Your task to perform on an android device: open a new tab in the chrome app Image 0: 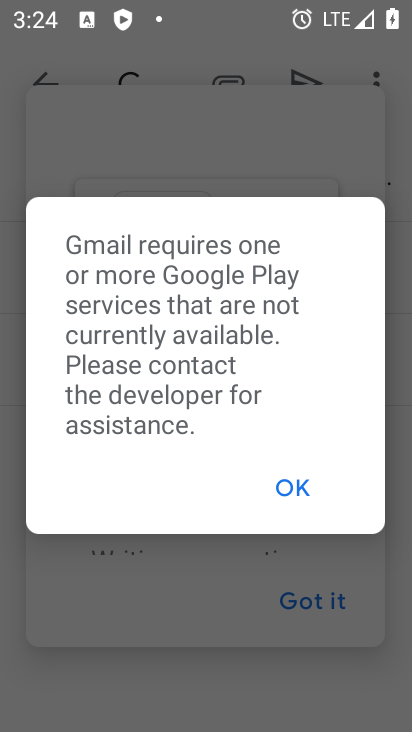
Step 0: press home button
Your task to perform on an android device: open a new tab in the chrome app Image 1: 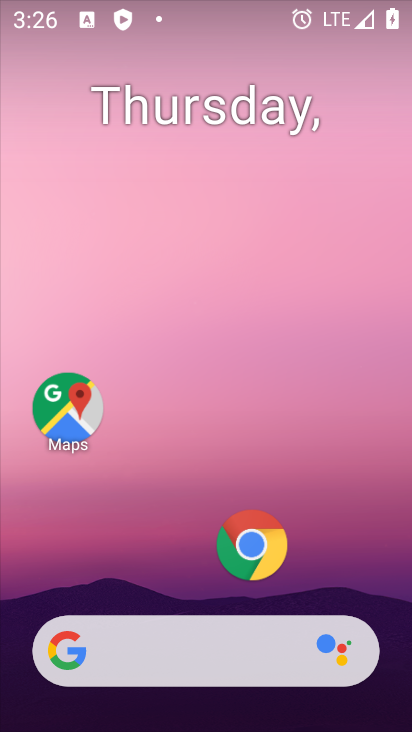
Step 1: drag from (197, 575) to (278, 127)
Your task to perform on an android device: open a new tab in the chrome app Image 2: 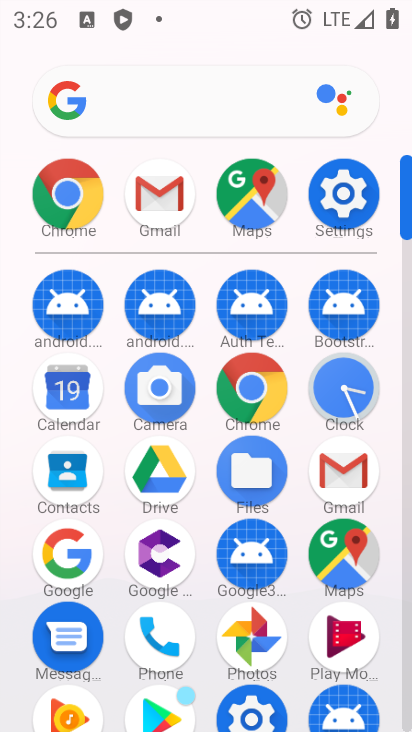
Step 2: click (266, 363)
Your task to perform on an android device: open a new tab in the chrome app Image 3: 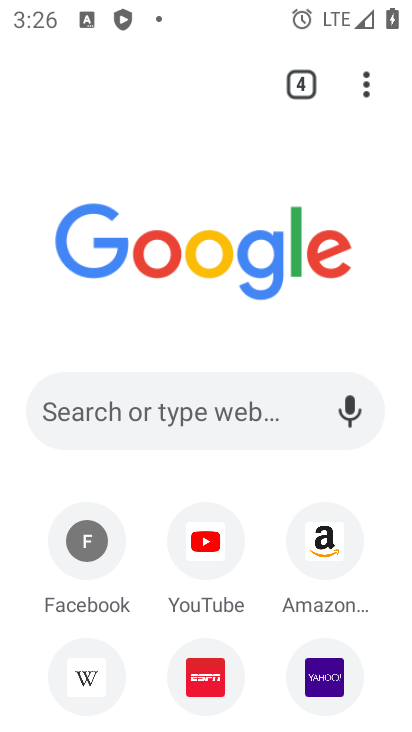
Step 3: click (378, 88)
Your task to perform on an android device: open a new tab in the chrome app Image 4: 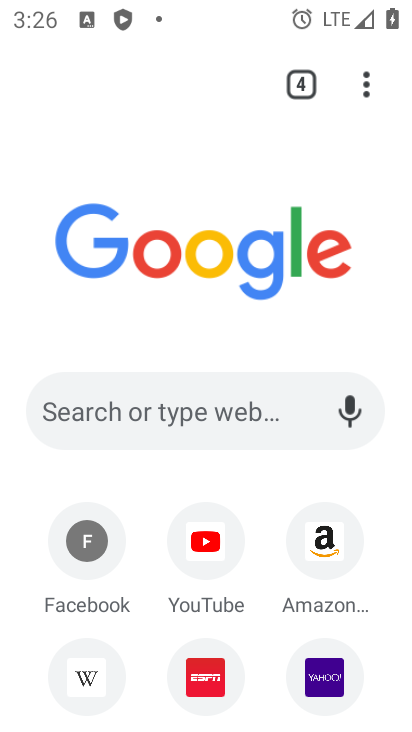
Step 4: task complete